Your task to perform on an android device: turn off notifications in google photos Image 0: 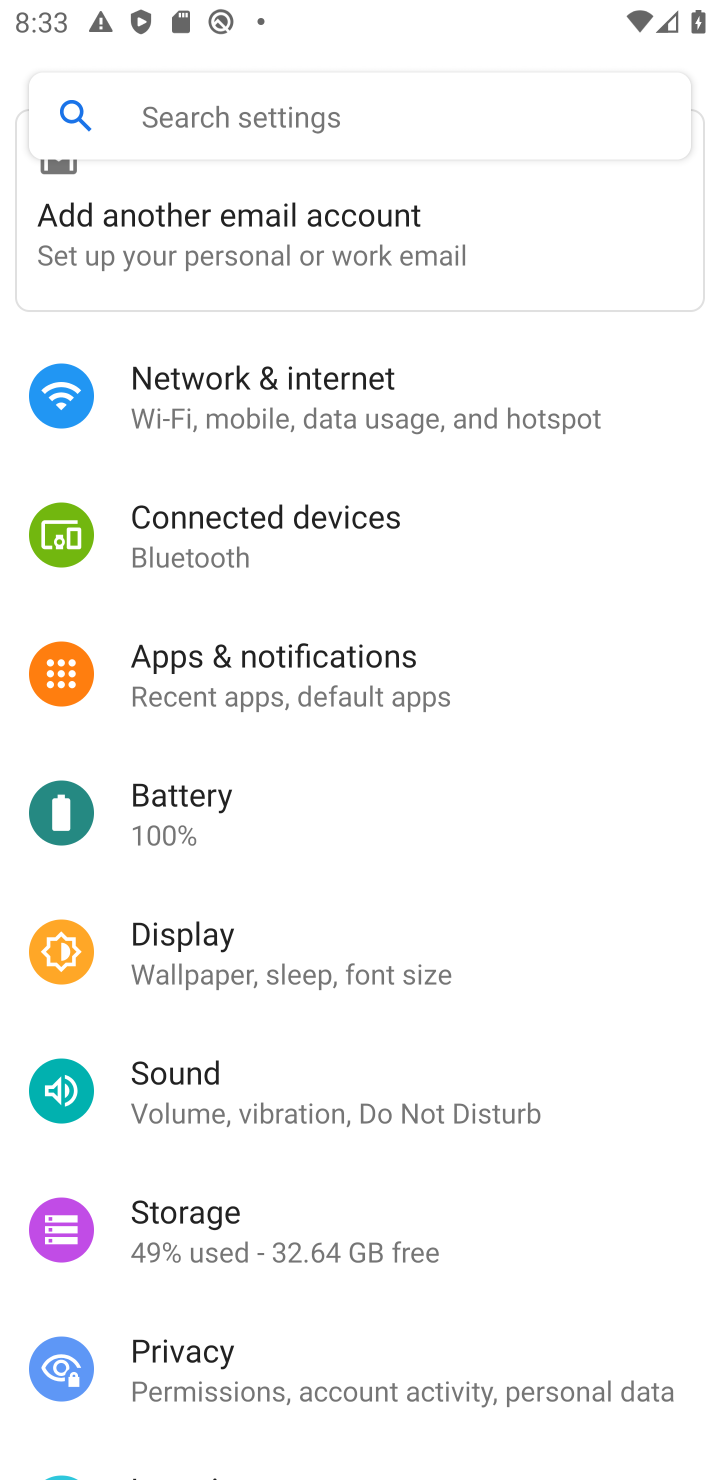
Step 0: press home button
Your task to perform on an android device: turn off notifications in google photos Image 1: 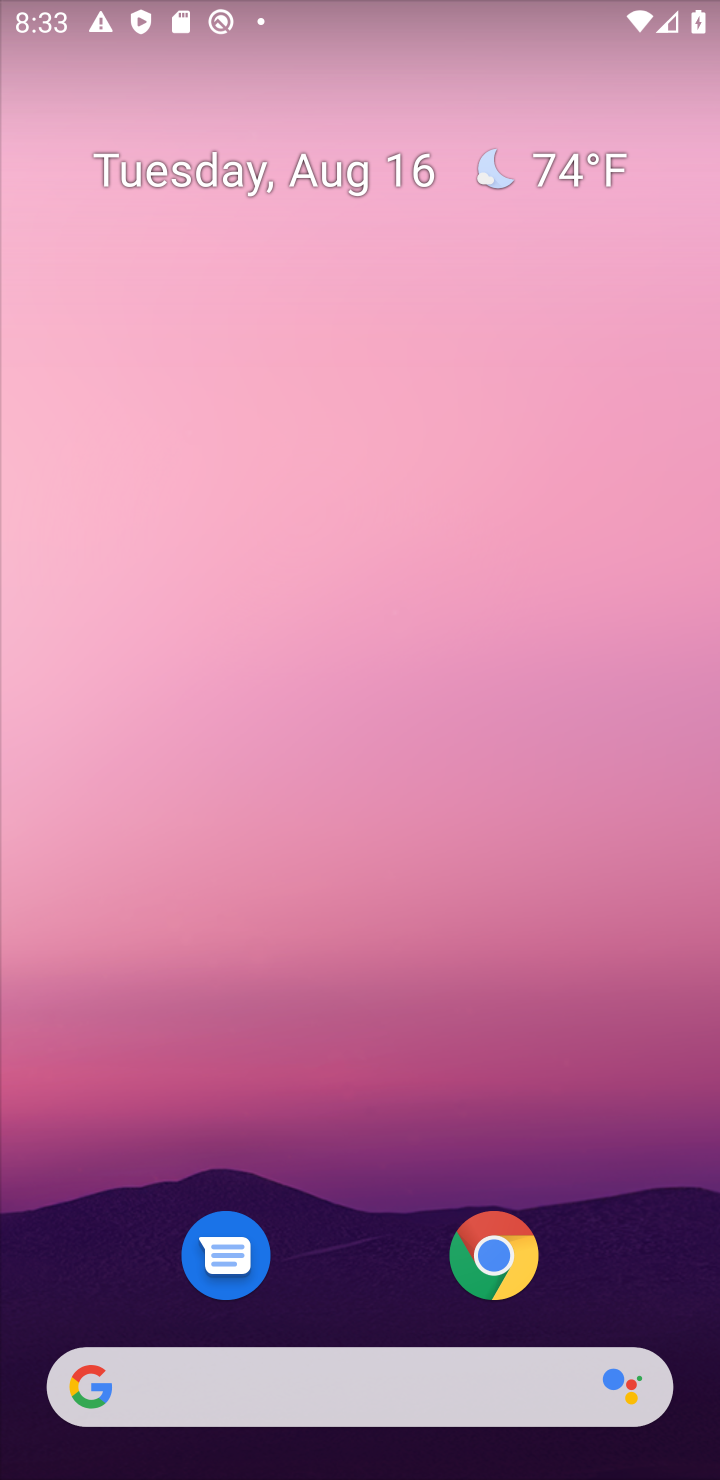
Step 1: drag from (340, 1365) to (486, 54)
Your task to perform on an android device: turn off notifications in google photos Image 2: 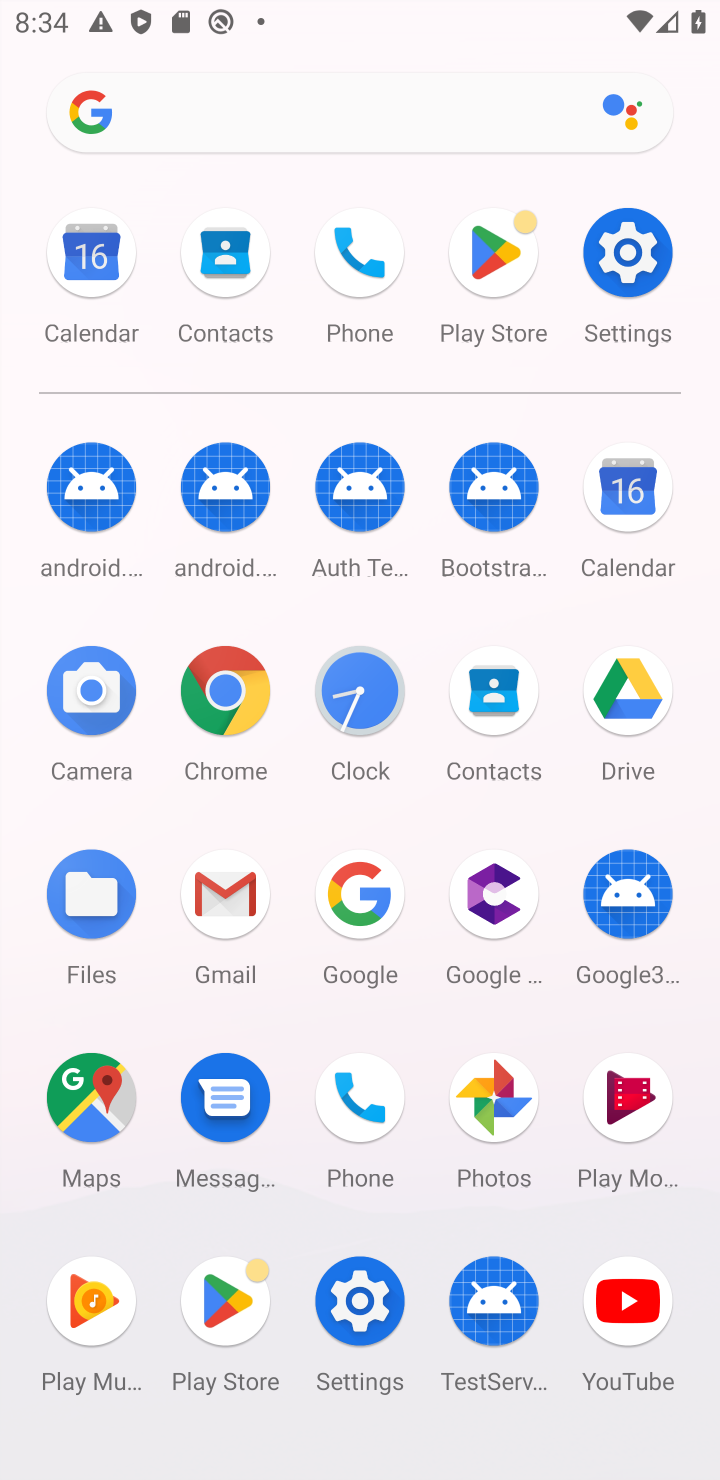
Step 2: click (505, 1082)
Your task to perform on an android device: turn off notifications in google photos Image 3: 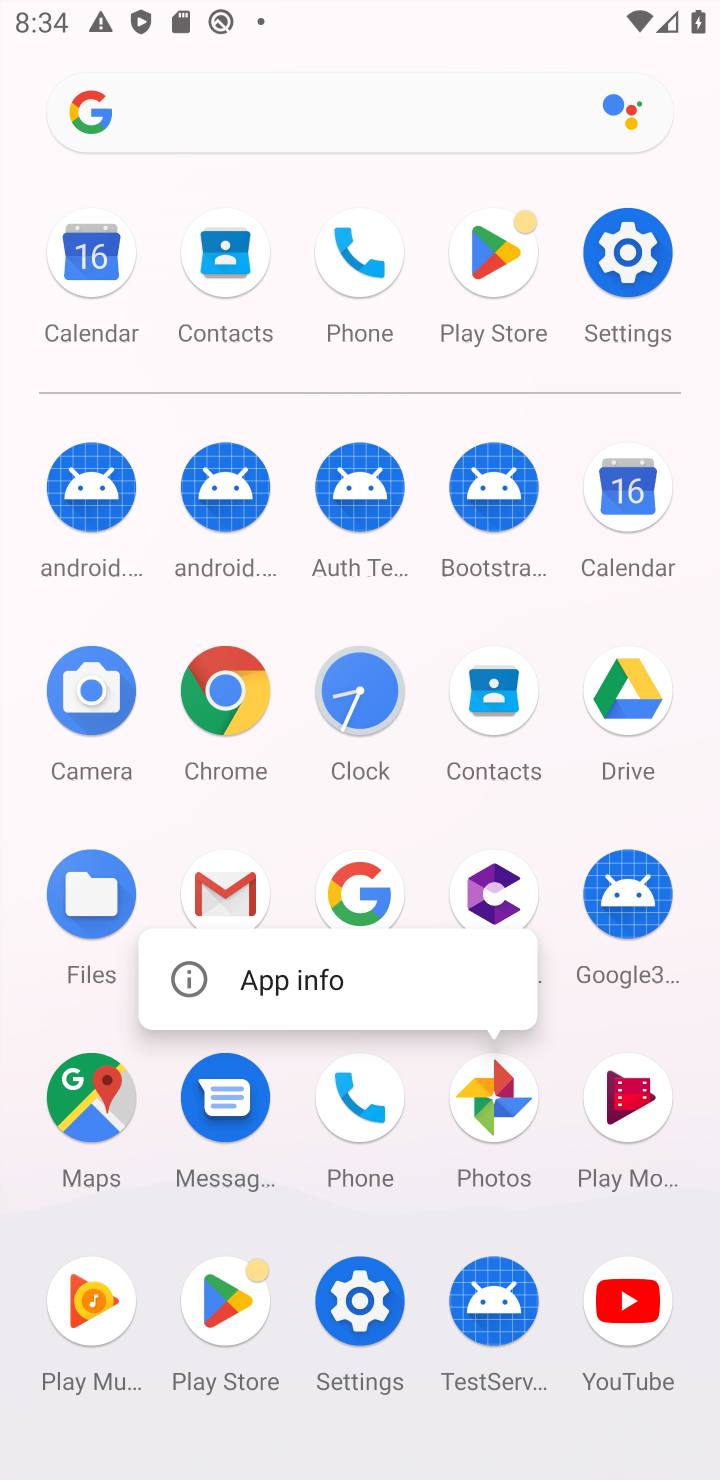
Step 3: click (505, 1082)
Your task to perform on an android device: turn off notifications in google photos Image 4: 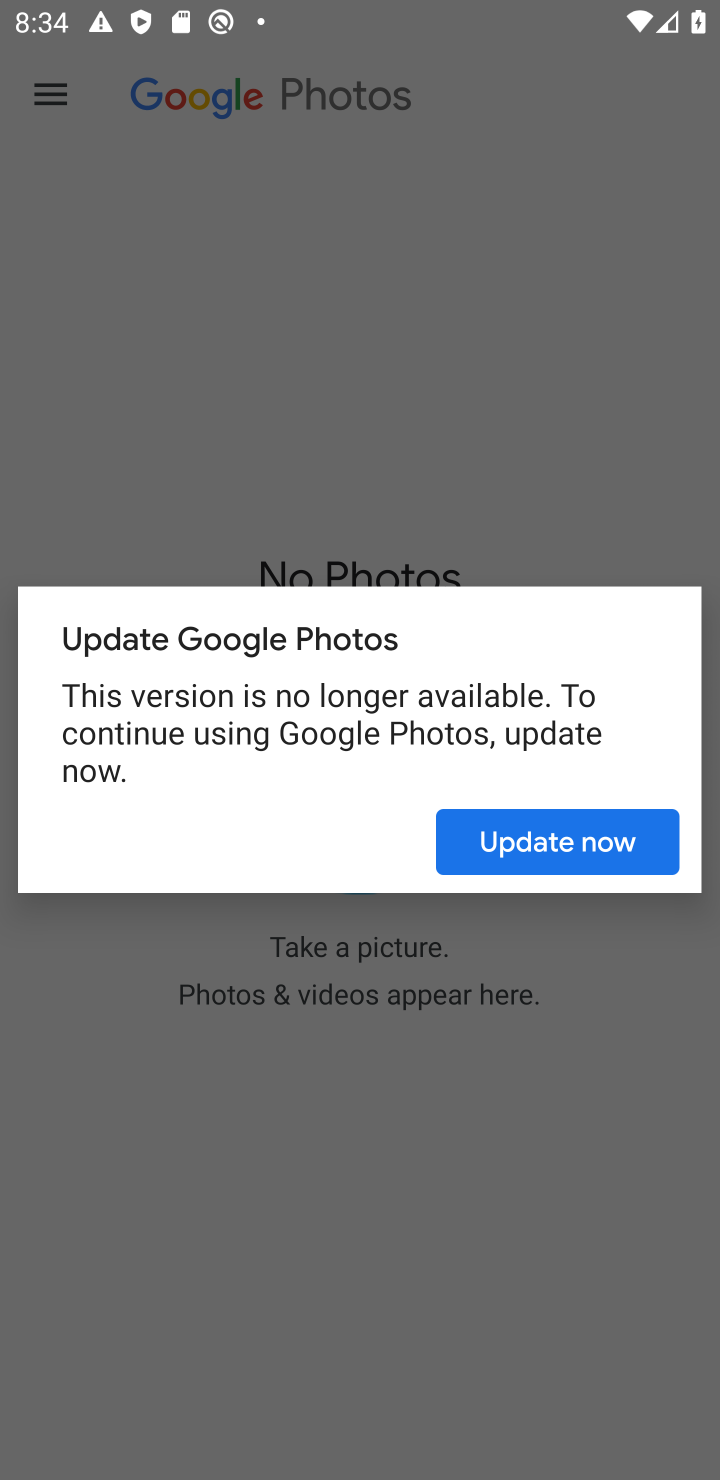
Step 4: click (496, 831)
Your task to perform on an android device: turn off notifications in google photos Image 5: 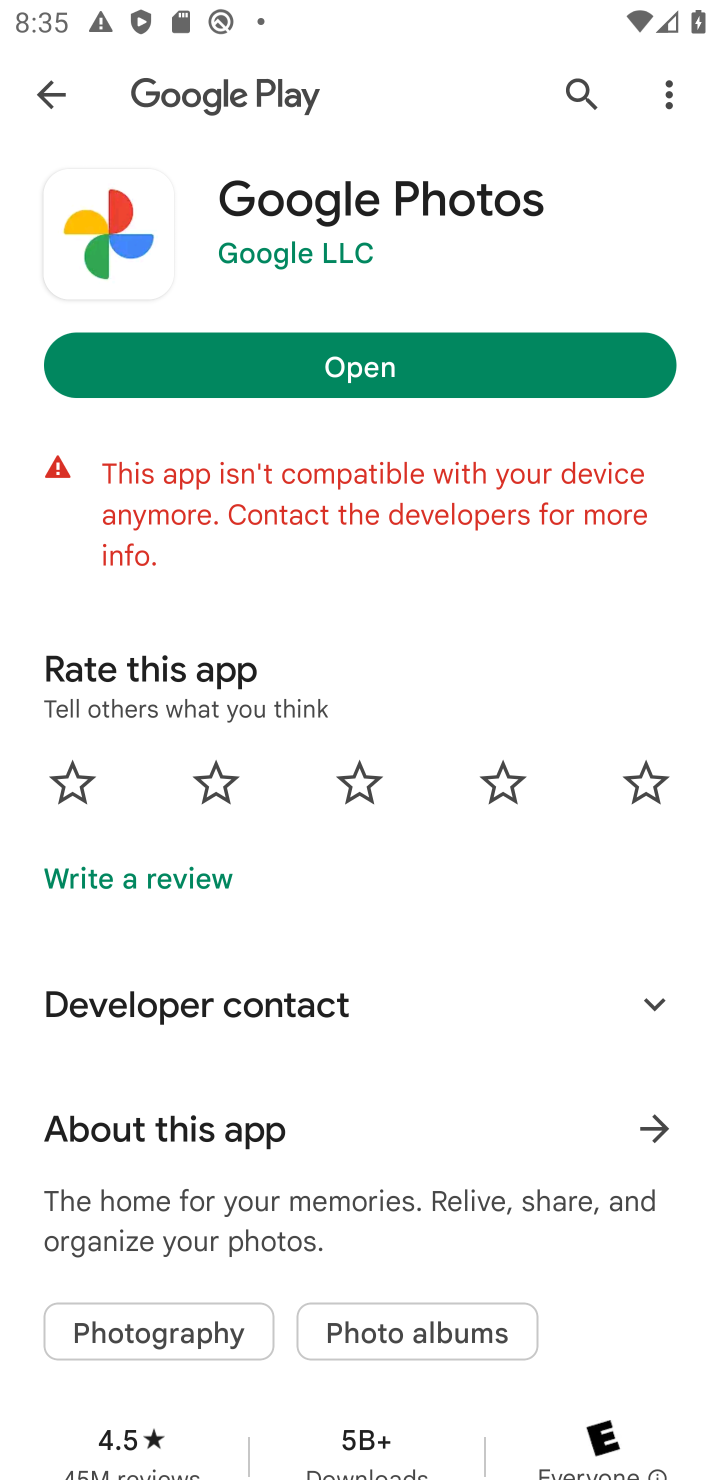
Step 5: task complete